Your task to perform on an android device: set default search engine in the chrome app Image 0: 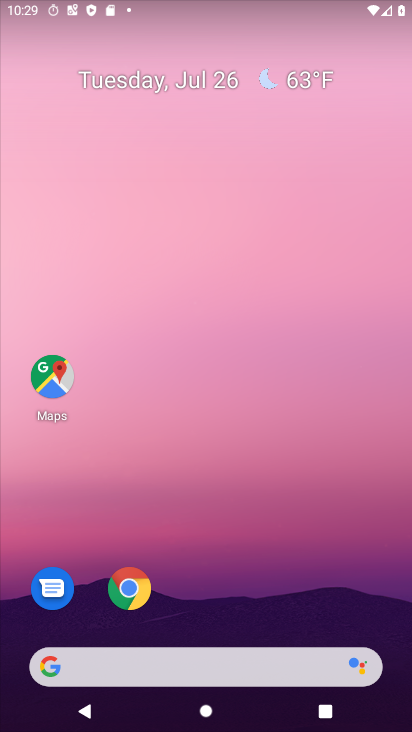
Step 0: click (142, 586)
Your task to perform on an android device: set default search engine in the chrome app Image 1: 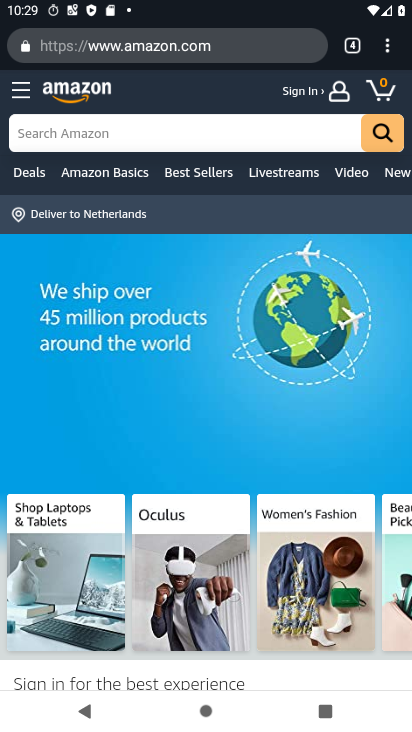
Step 1: click (396, 48)
Your task to perform on an android device: set default search engine in the chrome app Image 2: 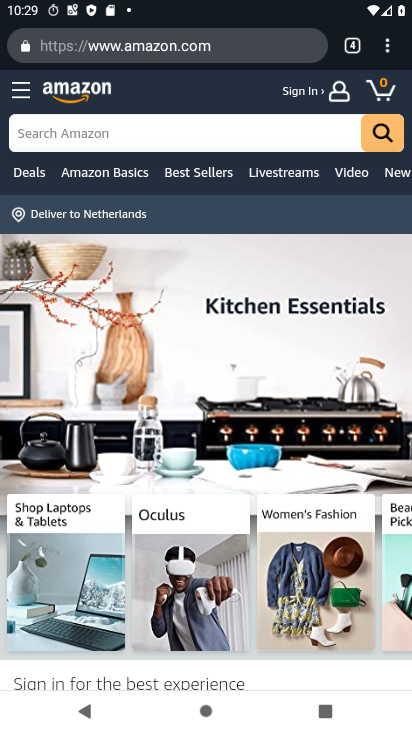
Step 2: click (396, 48)
Your task to perform on an android device: set default search engine in the chrome app Image 3: 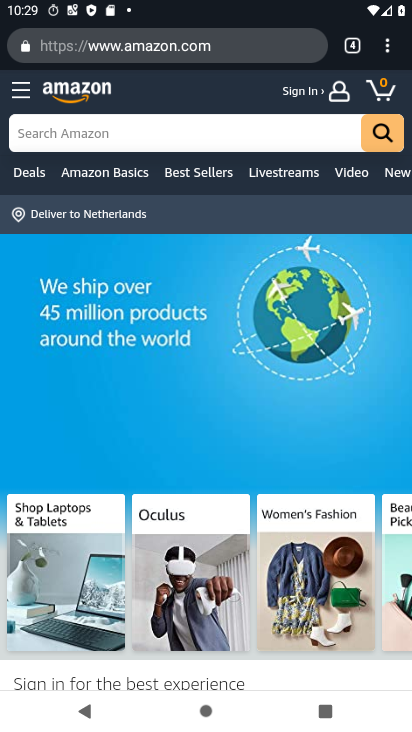
Step 3: click (393, 46)
Your task to perform on an android device: set default search engine in the chrome app Image 4: 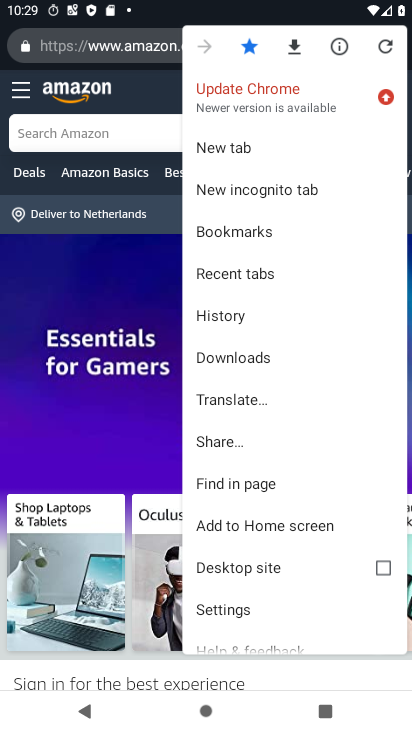
Step 4: click (244, 621)
Your task to perform on an android device: set default search engine in the chrome app Image 5: 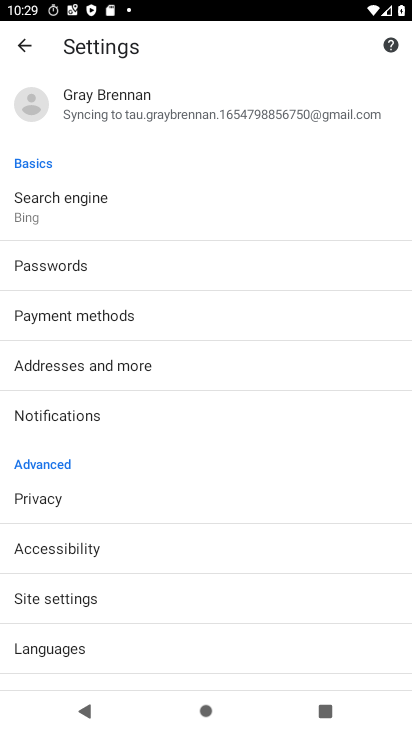
Step 5: click (116, 220)
Your task to perform on an android device: set default search engine in the chrome app Image 6: 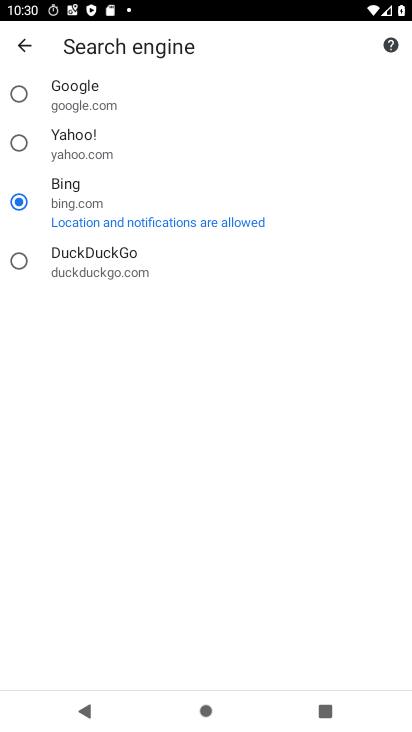
Step 6: click (120, 256)
Your task to perform on an android device: set default search engine in the chrome app Image 7: 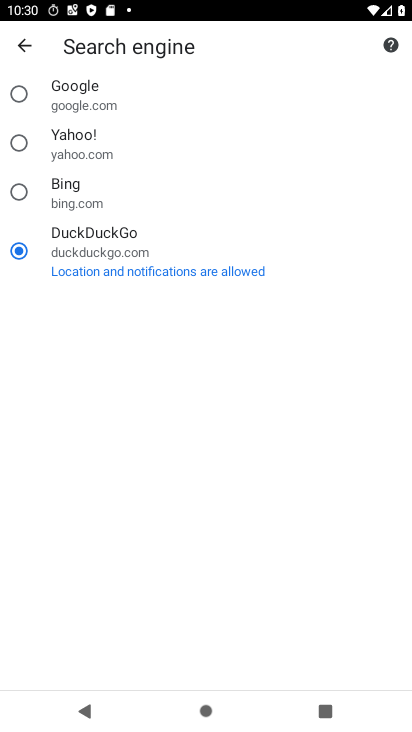
Step 7: task complete